Your task to perform on an android device: What is the news today? Image 0: 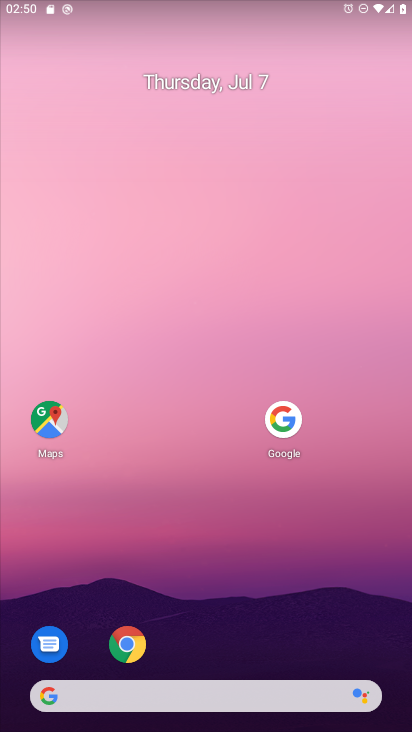
Step 0: click (150, 693)
Your task to perform on an android device: What is the news today? Image 1: 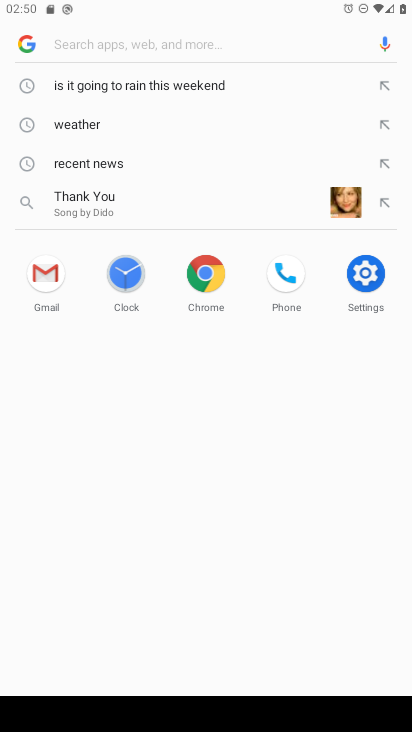
Step 1: click (108, 161)
Your task to perform on an android device: What is the news today? Image 2: 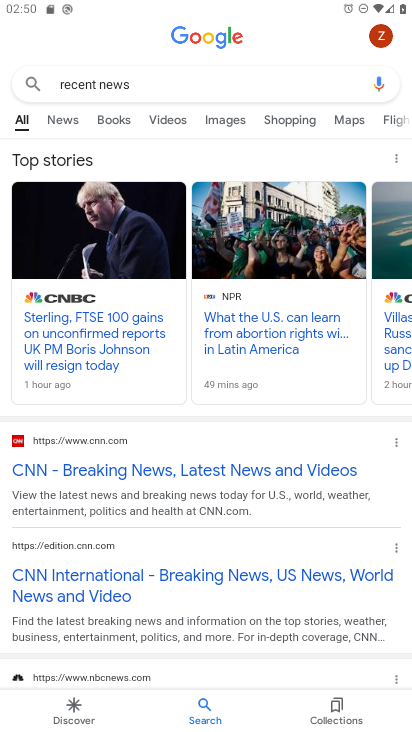
Step 2: task complete